Your task to perform on an android device: Open battery settings Image 0: 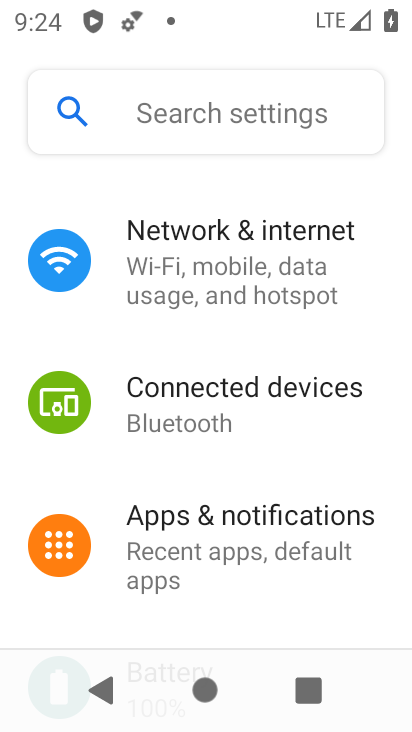
Step 0: drag from (203, 509) to (238, 129)
Your task to perform on an android device: Open battery settings Image 1: 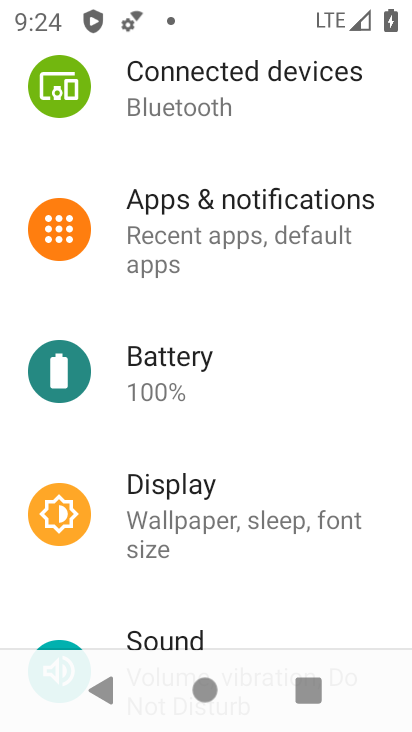
Step 1: click (218, 378)
Your task to perform on an android device: Open battery settings Image 2: 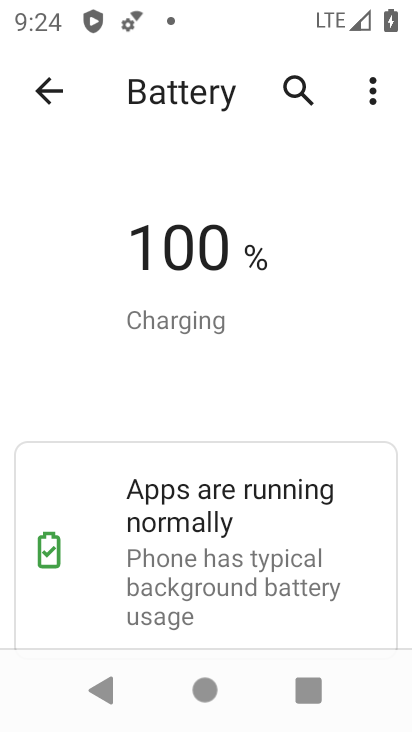
Step 2: task complete